Your task to perform on an android device: Search for vegetarian restaurants on Maps Image 0: 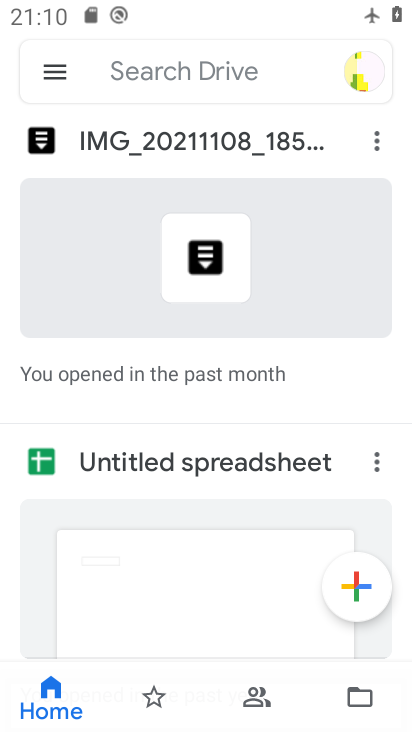
Step 0: press back button
Your task to perform on an android device: Search for vegetarian restaurants on Maps Image 1: 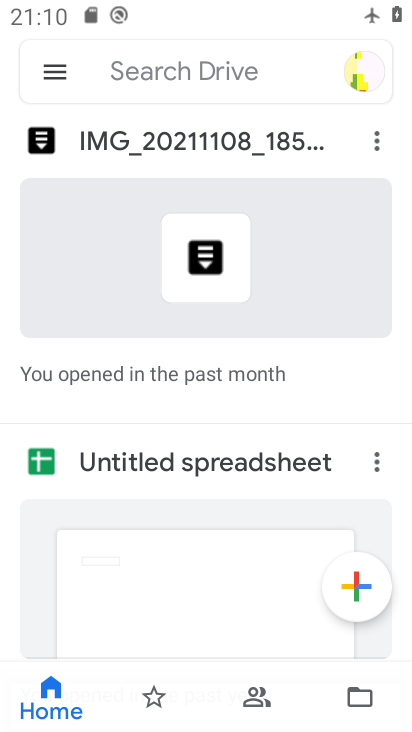
Step 1: press back button
Your task to perform on an android device: Search for vegetarian restaurants on Maps Image 2: 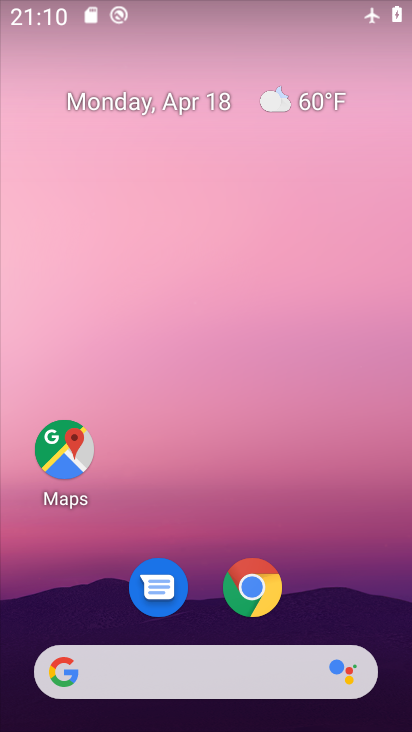
Step 2: click (74, 463)
Your task to perform on an android device: Search for vegetarian restaurants on Maps Image 3: 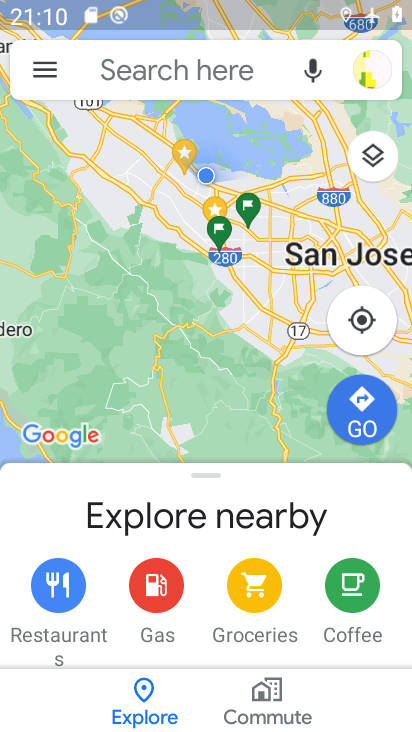
Step 3: click (120, 58)
Your task to perform on an android device: Search for vegetarian restaurants on Maps Image 4: 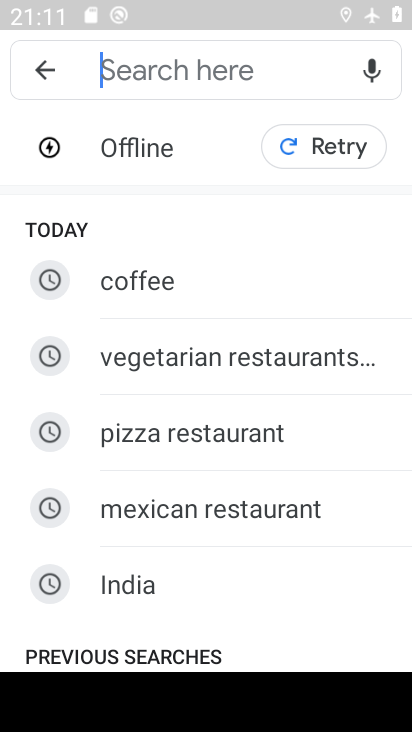
Step 4: click (193, 349)
Your task to perform on an android device: Search for vegetarian restaurants on Maps Image 5: 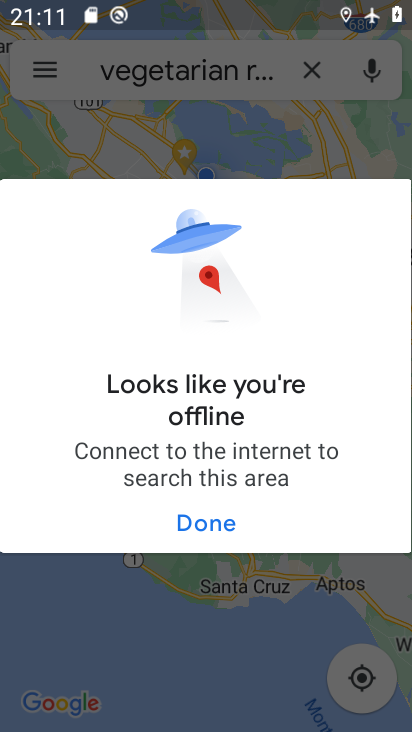
Step 5: task complete